Your task to perform on an android device: remove spam from my inbox in the gmail app Image 0: 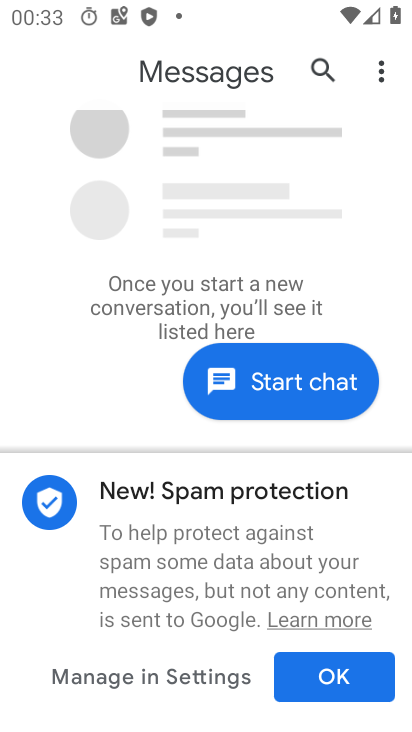
Step 0: press home button
Your task to perform on an android device: remove spam from my inbox in the gmail app Image 1: 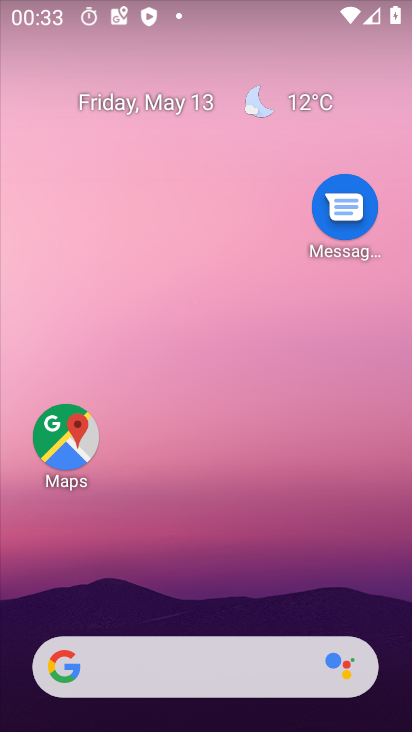
Step 1: drag from (269, 600) to (206, 34)
Your task to perform on an android device: remove spam from my inbox in the gmail app Image 2: 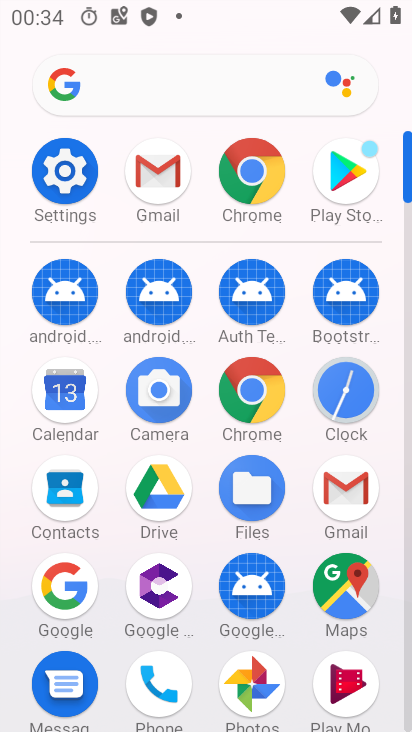
Step 2: click (362, 511)
Your task to perform on an android device: remove spam from my inbox in the gmail app Image 3: 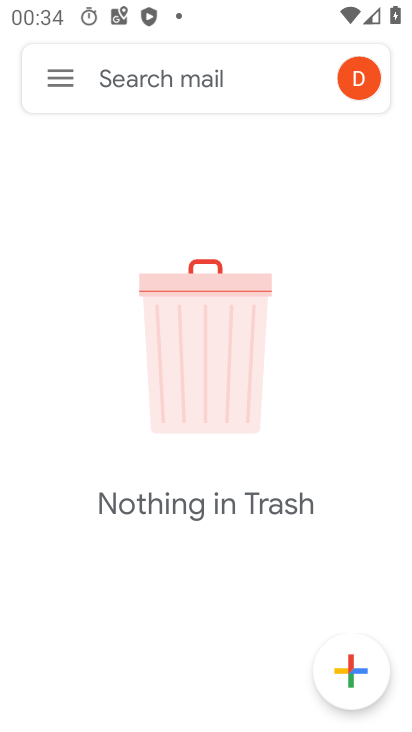
Step 3: drag from (70, 92) to (410, 410)
Your task to perform on an android device: remove spam from my inbox in the gmail app Image 4: 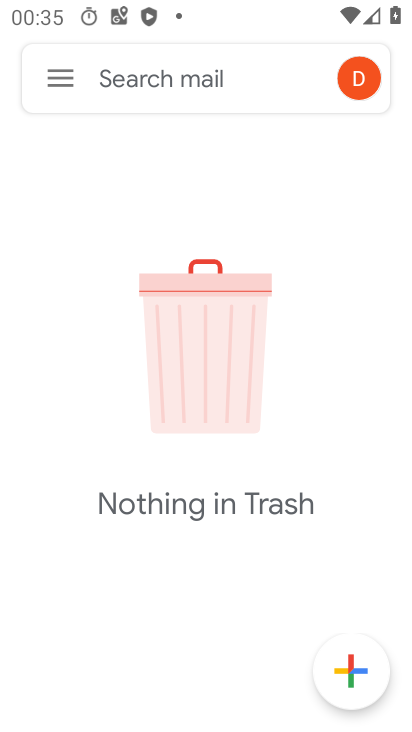
Step 4: click (47, 87)
Your task to perform on an android device: remove spam from my inbox in the gmail app Image 5: 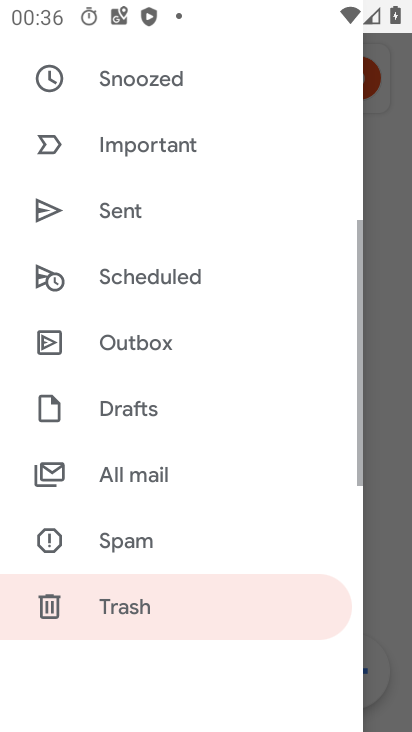
Step 5: task complete